Your task to perform on an android device: see creations saved in the google photos Image 0: 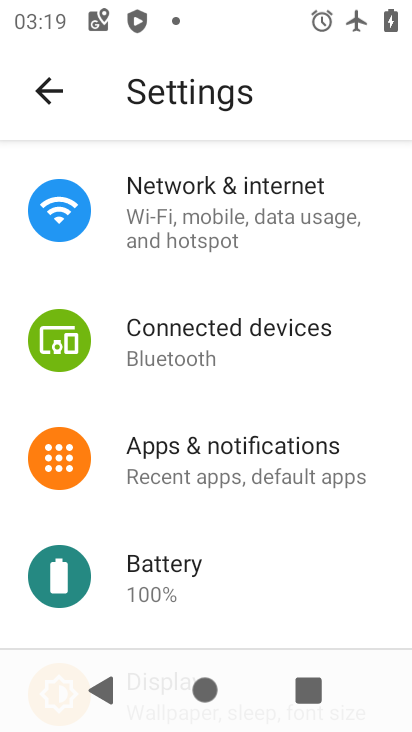
Step 0: press home button
Your task to perform on an android device: see creations saved in the google photos Image 1: 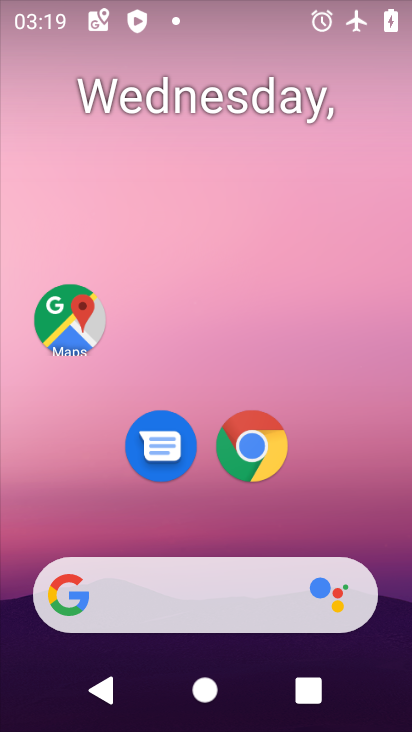
Step 1: drag from (210, 527) to (212, 150)
Your task to perform on an android device: see creations saved in the google photos Image 2: 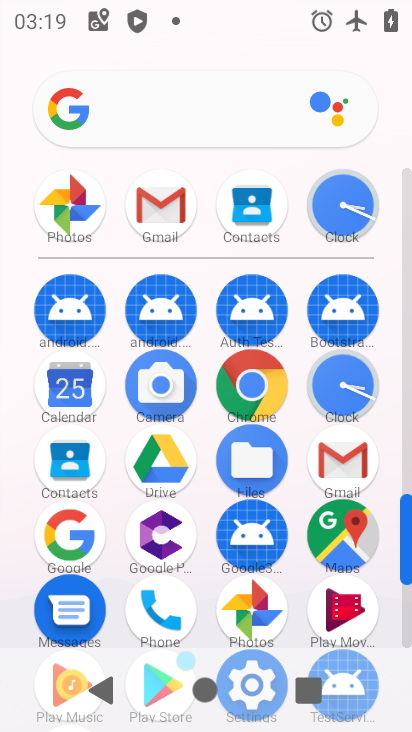
Step 2: click (93, 220)
Your task to perform on an android device: see creations saved in the google photos Image 3: 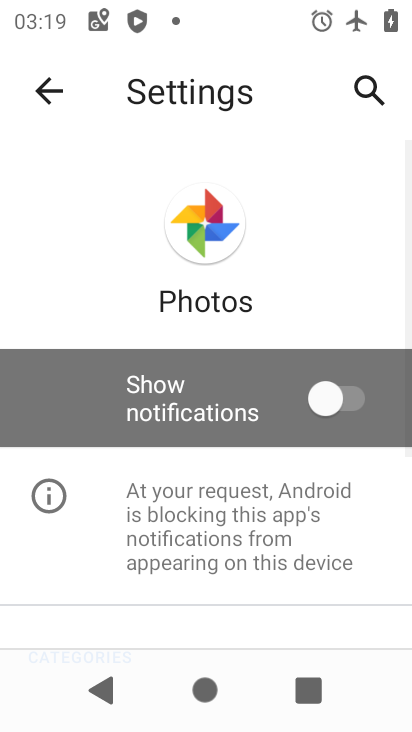
Step 3: click (42, 89)
Your task to perform on an android device: see creations saved in the google photos Image 4: 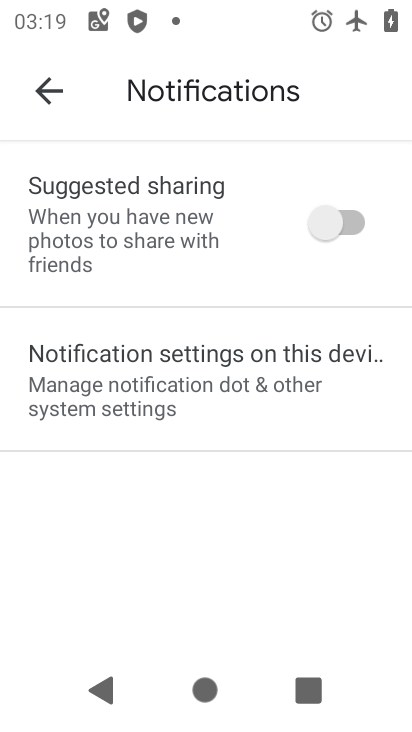
Step 4: click (42, 89)
Your task to perform on an android device: see creations saved in the google photos Image 5: 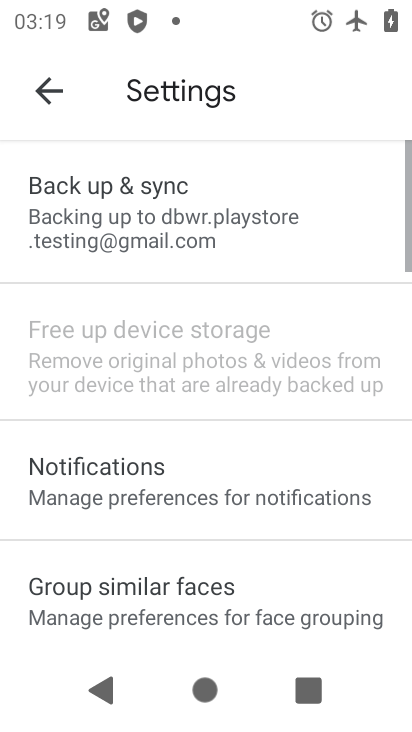
Step 5: click (42, 89)
Your task to perform on an android device: see creations saved in the google photos Image 6: 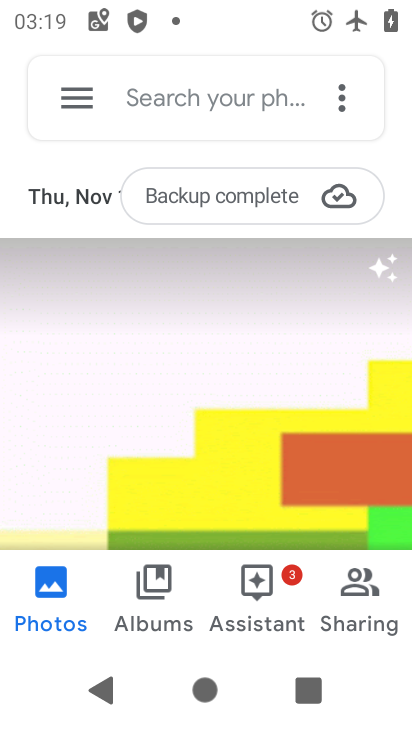
Step 6: click (267, 104)
Your task to perform on an android device: see creations saved in the google photos Image 7: 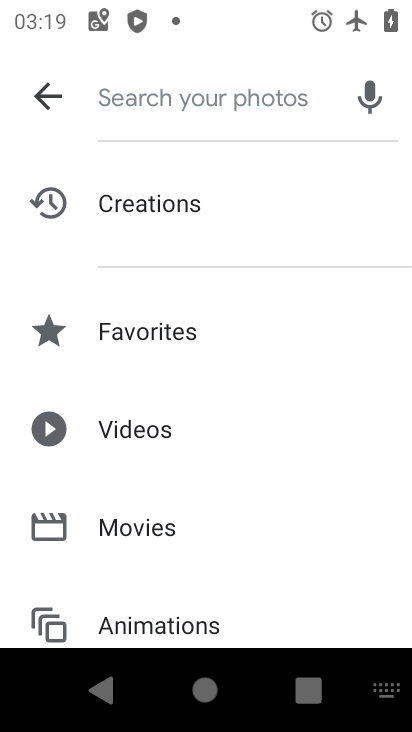
Step 7: click (139, 229)
Your task to perform on an android device: see creations saved in the google photos Image 8: 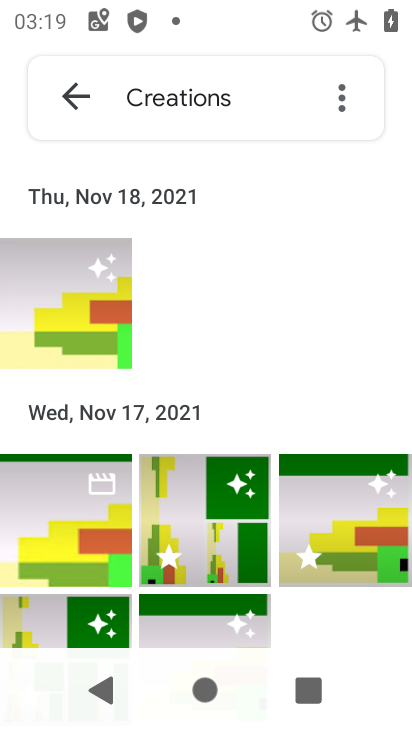
Step 8: task complete